Your task to perform on an android device: uninstall "Spotify" Image 0: 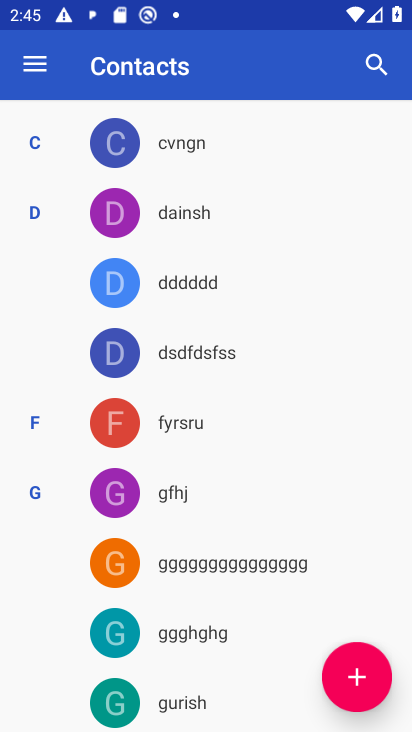
Step 0: press home button
Your task to perform on an android device: uninstall "Spotify" Image 1: 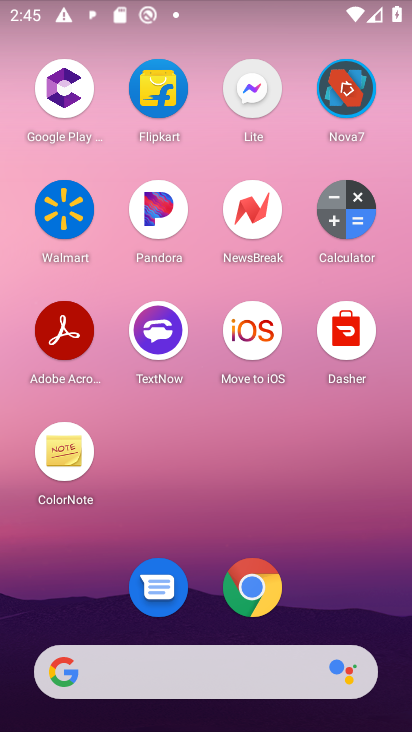
Step 1: drag from (225, 171) to (217, 43)
Your task to perform on an android device: uninstall "Spotify" Image 2: 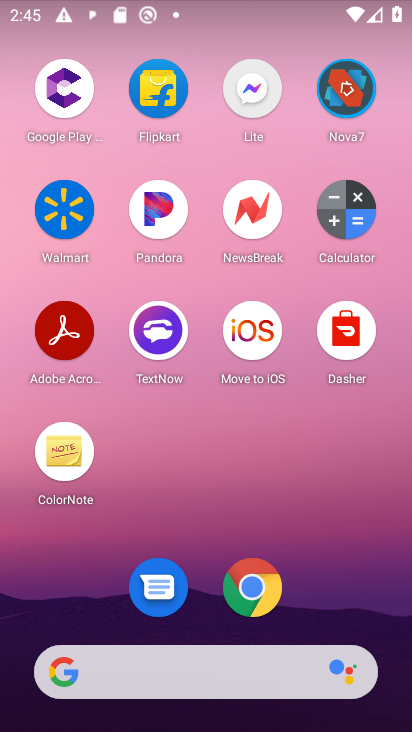
Step 2: drag from (241, 715) to (238, 13)
Your task to perform on an android device: uninstall "Spotify" Image 3: 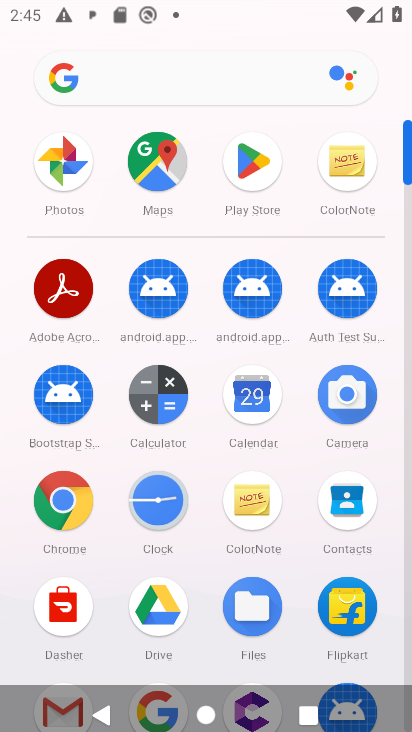
Step 3: click (243, 163)
Your task to perform on an android device: uninstall "Spotify" Image 4: 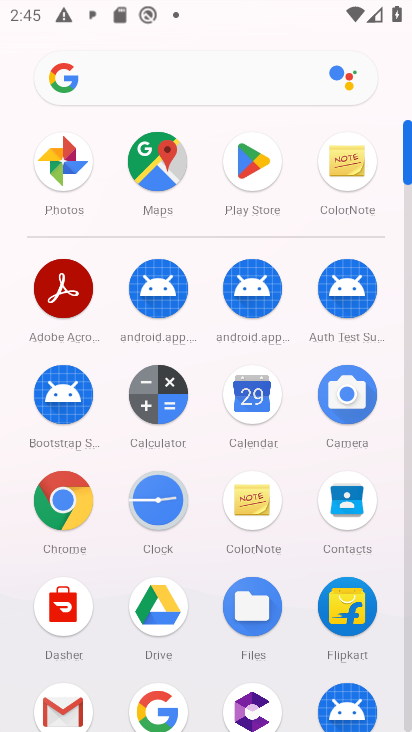
Step 4: click (243, 163)
Your task to perform on an android device: uninstall "Spotify" Image 5: 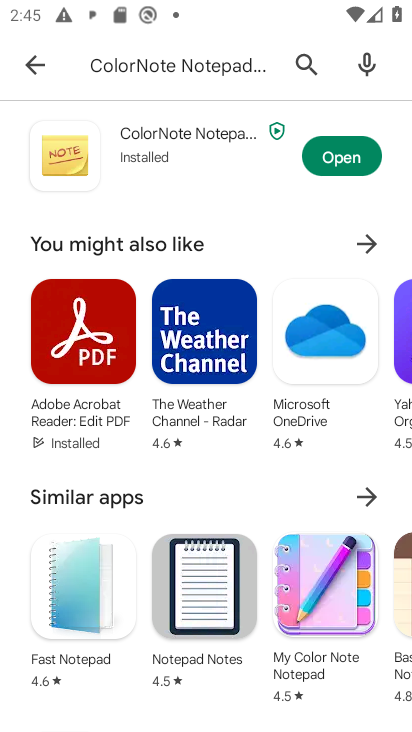
Step 5: click (295, 57)
Your task to perform on an android device: uninstall "Spotify" Image 6: 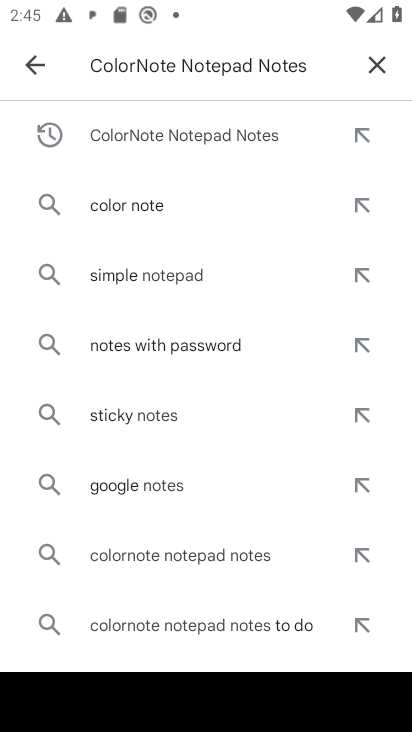
Step 6: click (382, 64)
Your task to perform on an android device: uninstall "Spotify" Image 7: 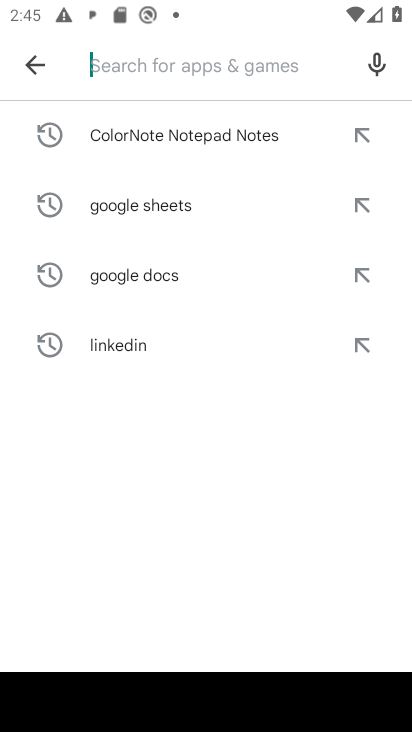
Step 7: click (288, 63)
Your task to perform on an android device: uninstall "Spotify" Image 8: 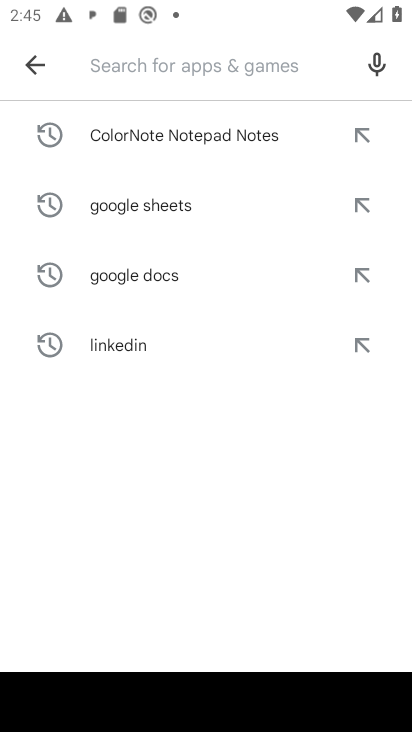
Step 8: type "Spotify"
Your task to perform on an android device: uninstall "Spotify" Image 9: 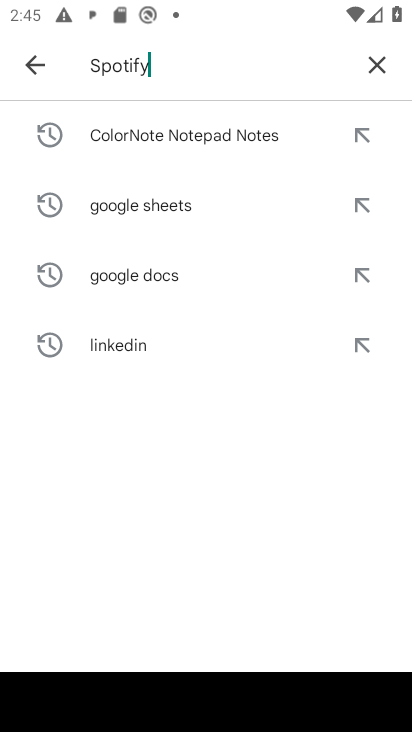
Step 9: type ""
Your task to perform on an android device: uninstall "Spotify" Image 10: 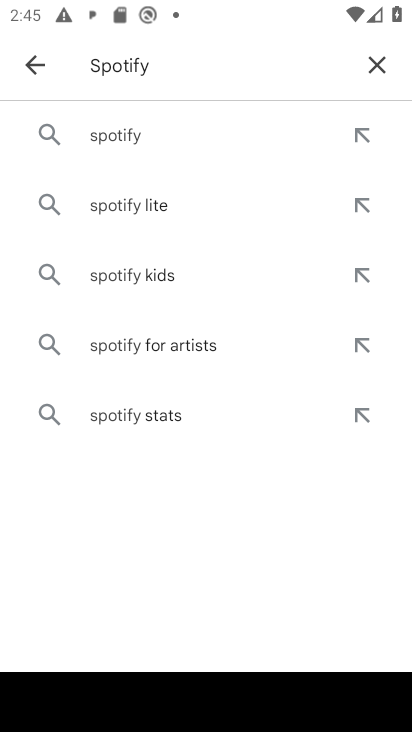
Step 10: click (191, 139)
Your task to perform on an android device: uninstall "Spotify" Image 11: 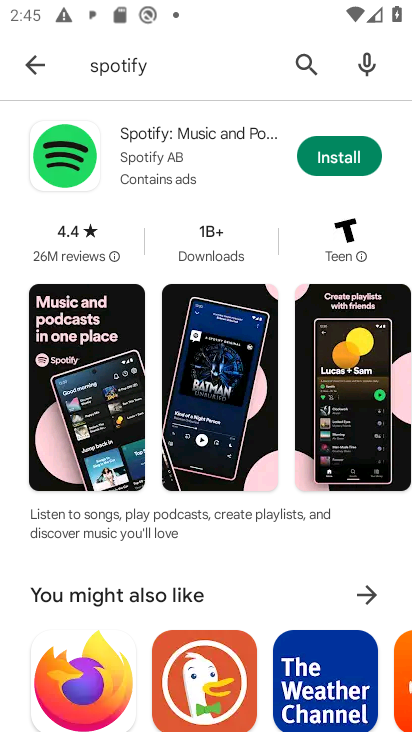
Step 11: task complete